Your task to perform on an android device: Go to network settings Image 0: 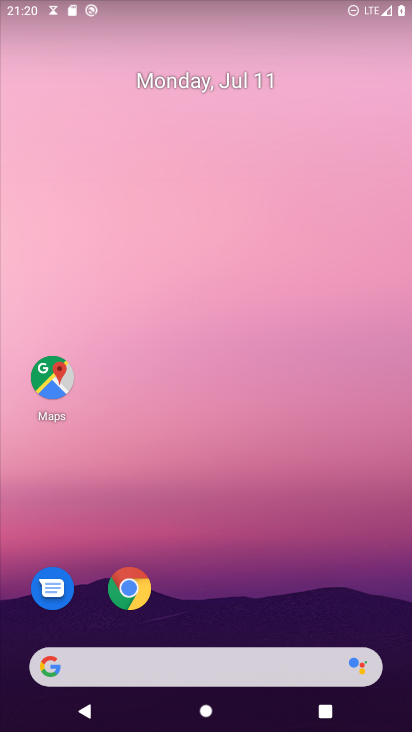
Step 0: drag from (233, 595) to (252, 98)
Your task to perform on an android device: Go to network settings Image 1: 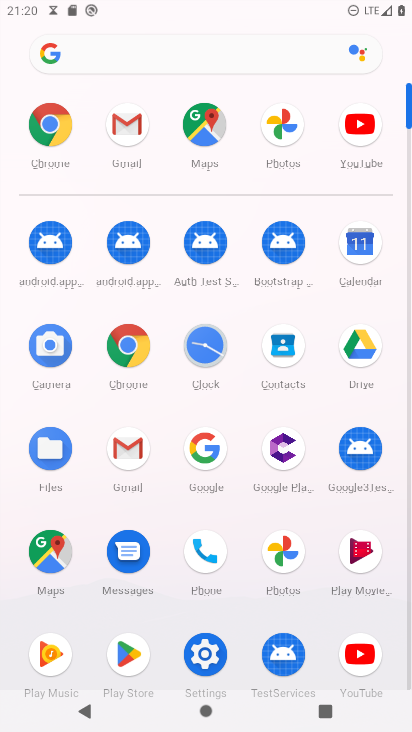
Step 1: click (210, 646)
Your task to perform on an android device: Go to network settings Image 2: 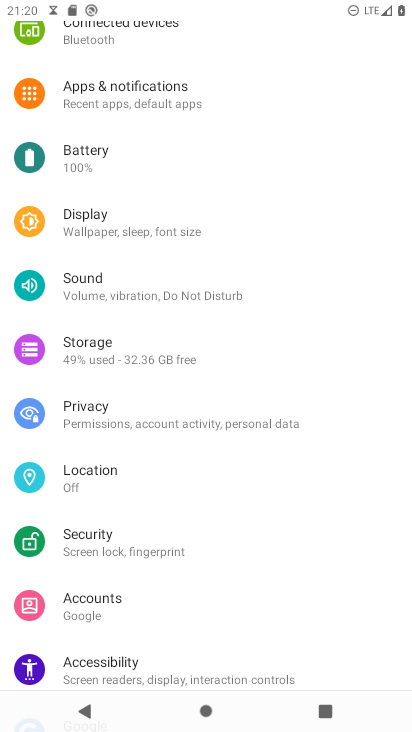
Step 2: drag from (270, 65) to (302, 402)
Your task to perform on an android device: Go to network settings Image 3: 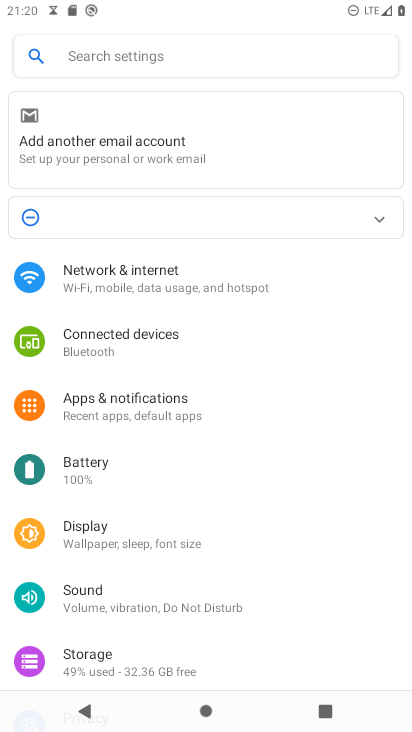
Step 3: drag from (258, 58) to (267, 341)
Your task to perform on an android device: Go to network settings Image 4: 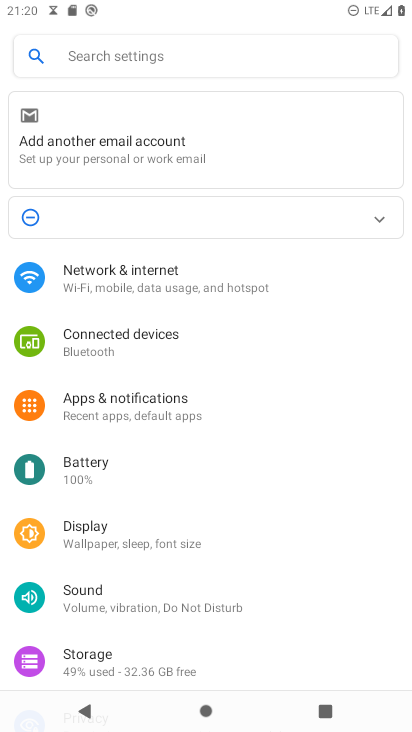
Step 4: click (117, 271)
Your task to perform on an android device: Go to network settings Image 5: 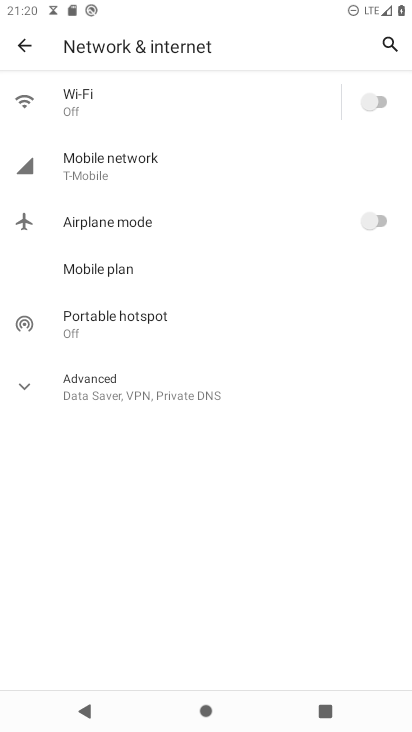
Step 5: task complete